Your task to perform on an android device: change the clock display to digital Image 0: 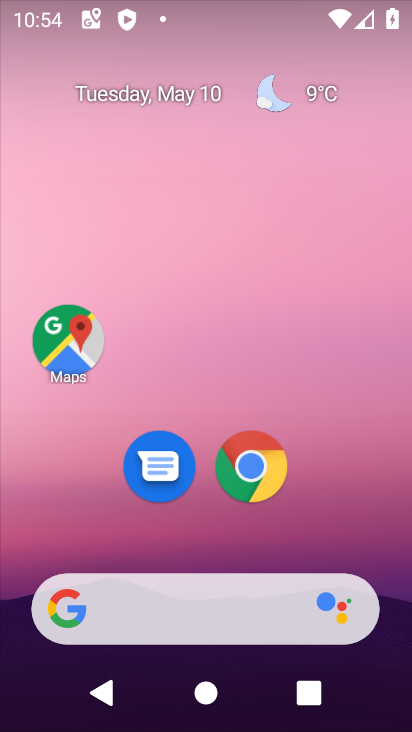
Step 0: drag from (346, 516) to (348, 7)
Your task to perform on an android device: change the clock display to digital Image 1: 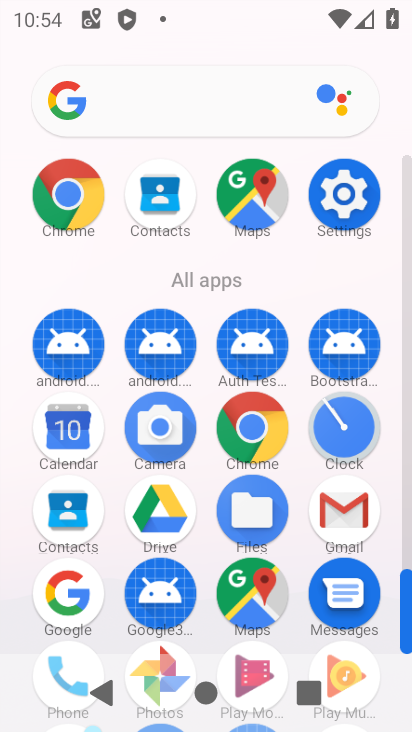
Step 1: click (342, 436)
Your task to perform on an android device: change the clock display to digital Image 2: 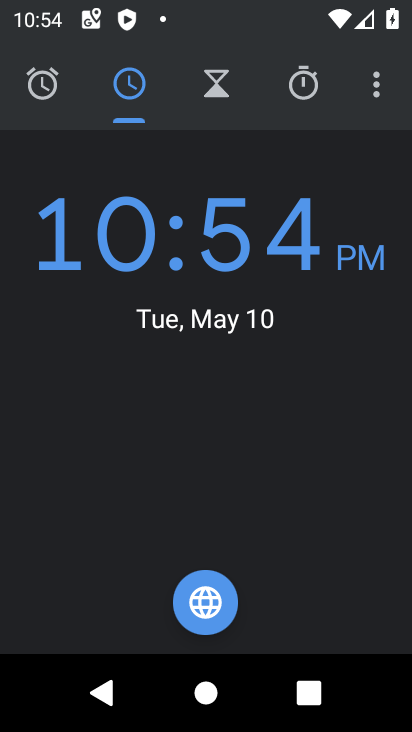
Step 2: click (378, 82)
Your task to perform on an android device: change the clock display to digital Image 3: 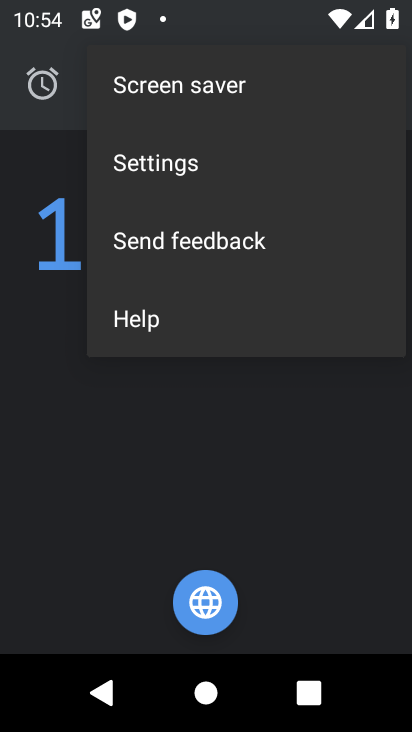
Step 3: click (258, 166)
Your task to perform on an android device: change the clock display to digital Image 4: 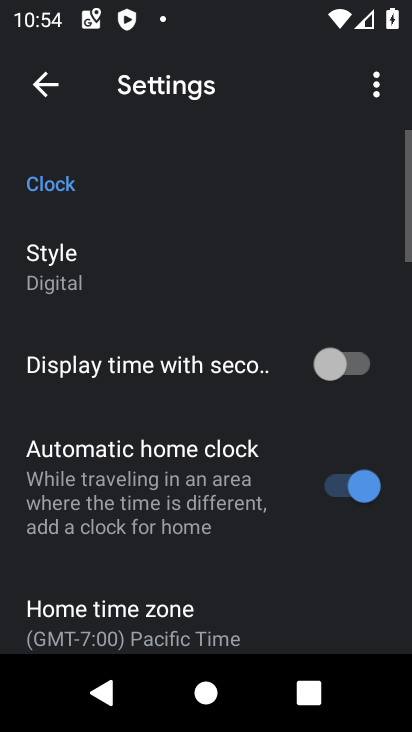
Step 4: click (73, 267)
Your task to perform on an android device: change the clock display to digital Image 5: 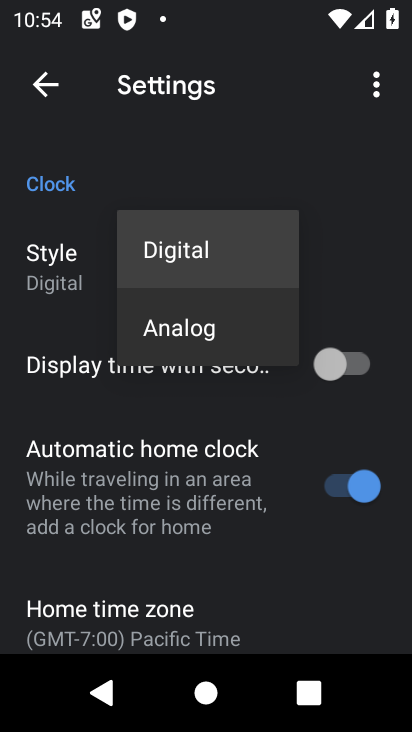
Step 5: click (266, 238)
Your task to perform on an android device: change the clock display to digital Image 6: 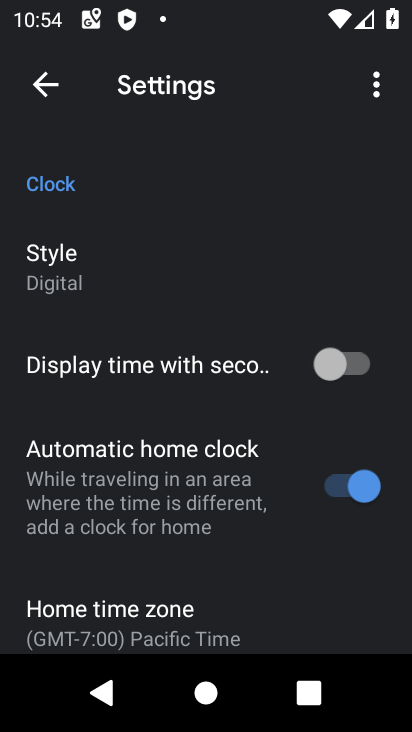
Step 6: task complete